Your task to perform on an android device: turn vacation reply on in the gmail app Image 0: 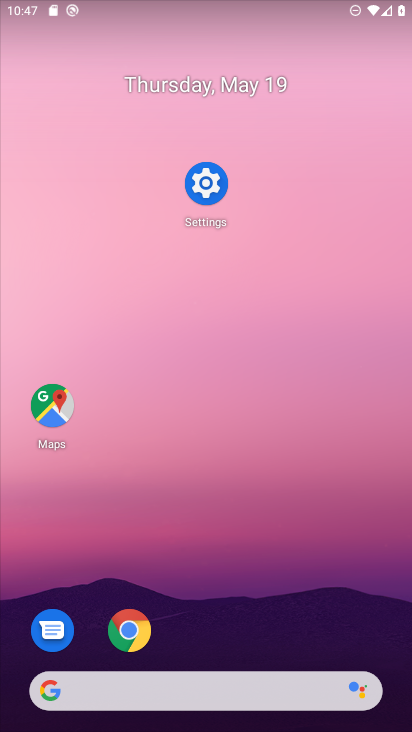
Step 0: drag from (237, 645) to (167, 240)
Your task to perform on an android device: turn vacation reply on in the gmail app Image 1: 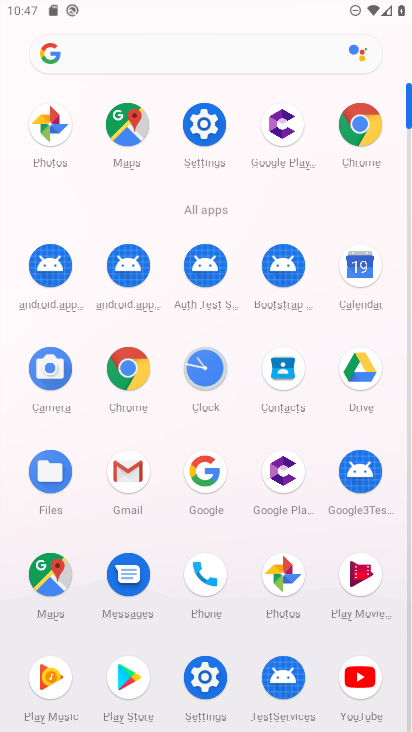
Step 1: click (137, 463)
Your task to perform on an android device: turn vacation reply on in the gmail app Image 2: 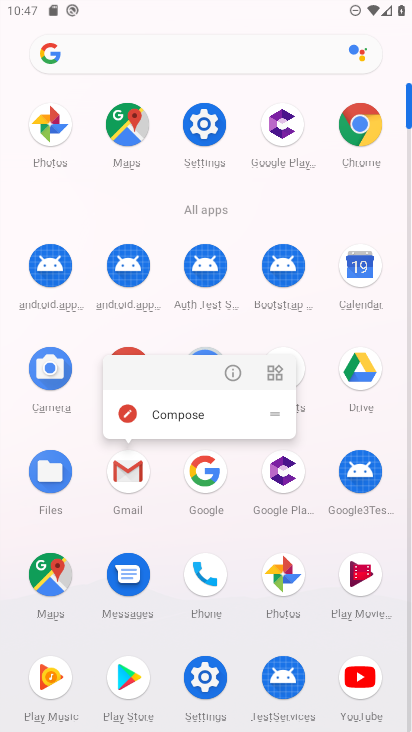
Step 2: click (137, 463)
Your task to perform on an android device: turn vacation reply on in the gmail app Image 3: 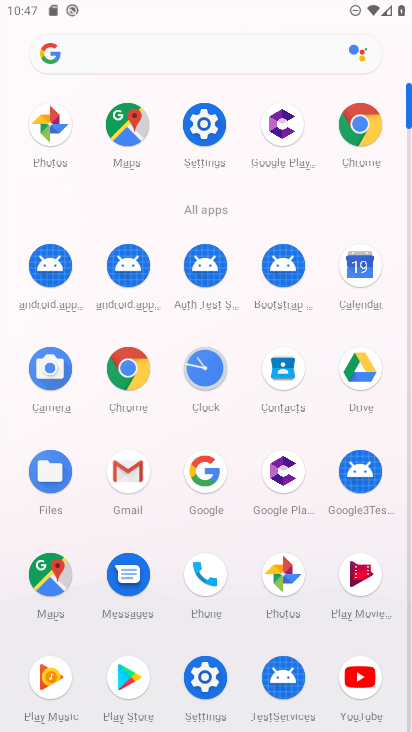
Step 3: click (137, 463)
Your task to perform on an android device: turn vacation reply on in the gmail app Image 4: 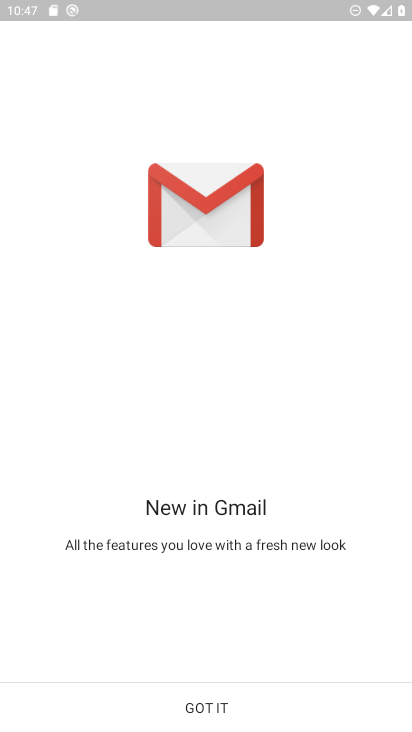
Step 4: click (201, 712)
Your task to perform on an android device: turn vacation reply on in the gmail app Image 5: 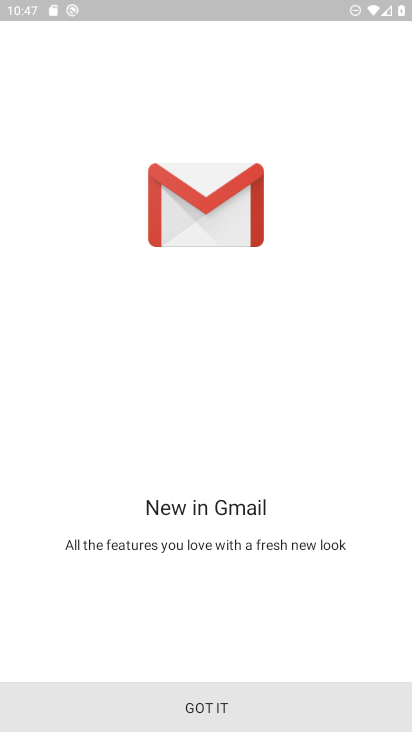
Step 5: click (201, 712)
Your task to perform on an android device: turn vacation reply on in the gmail app Image 6: 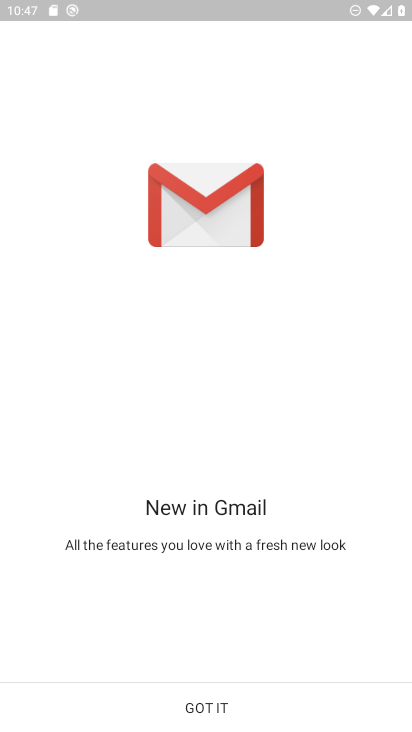
Step 6: click (198, 712)
Your task to perform on an android device: turn vacation reply on in the gmail app Image 7: 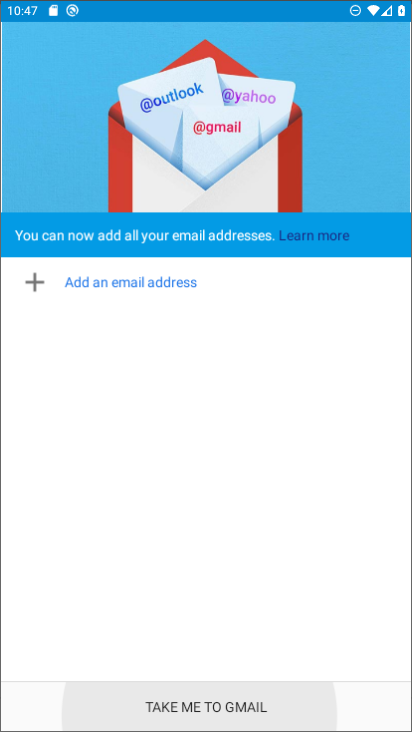
Step 7: click (198, 712)
Your task to perform on an android device: turn vacation reply on in the gmail app Image 8: 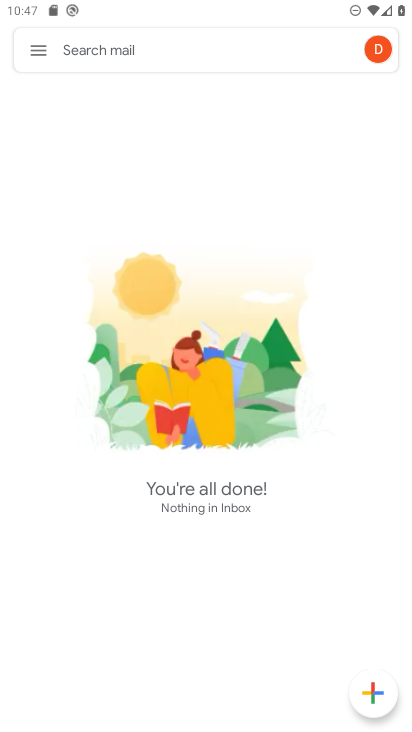
Step 8: press back button
Your task to perform on an android device: turn vacation reply on in the gmail app Image 9: 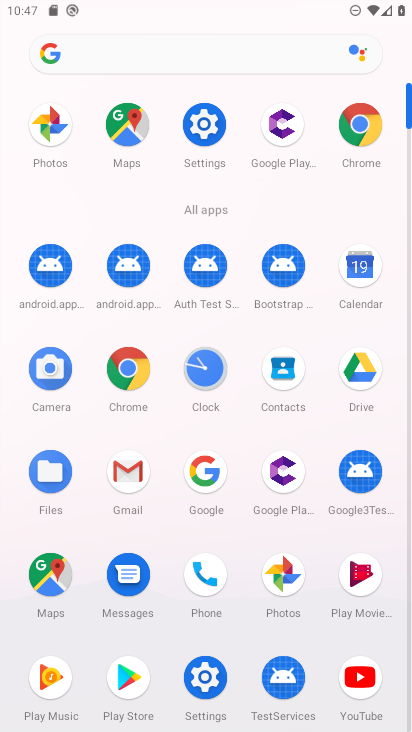
Step 9: click (114, 477)
Your task to perform on an android device: turn vacation reply on in the gmail app Image 10: 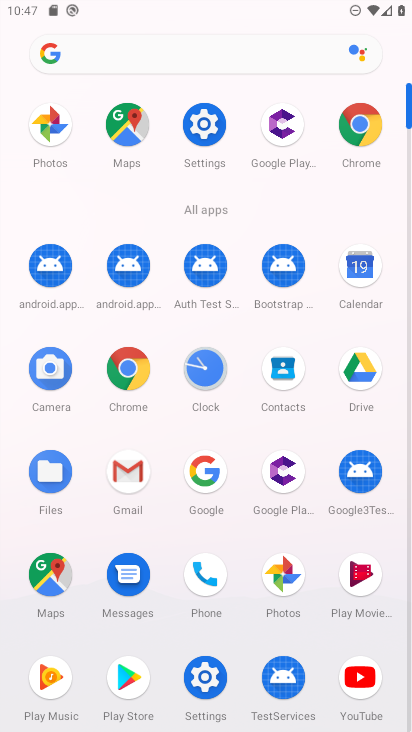
Step 10: click (117, 471)
Your task to perform on an android device: turn vacation reply on in the gmail app Image 11: 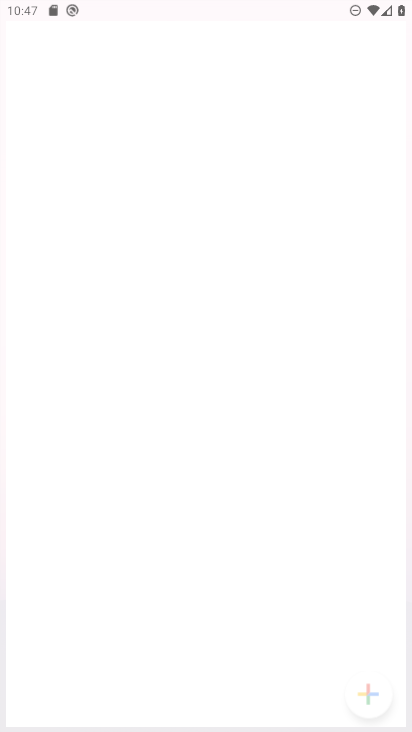
Step 11: click (117, 471)
Your task to perform on an android device: turn vacation reply on in the gmail app Image 12: 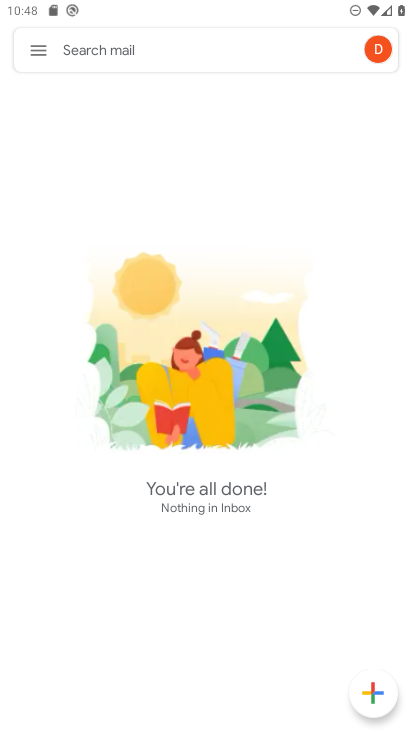
Step 12: click (35, 46)
Your task to perform on an android device: turn vacation reply on in the gmail app Image 13: 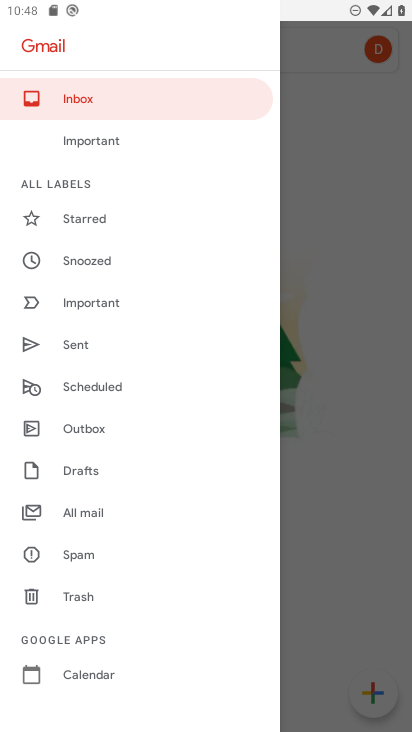
Step 13: drag from (110, 596) to (55, 113)
Your task to perform on an android device: turn vacation reply on in the gmail app Image 14: 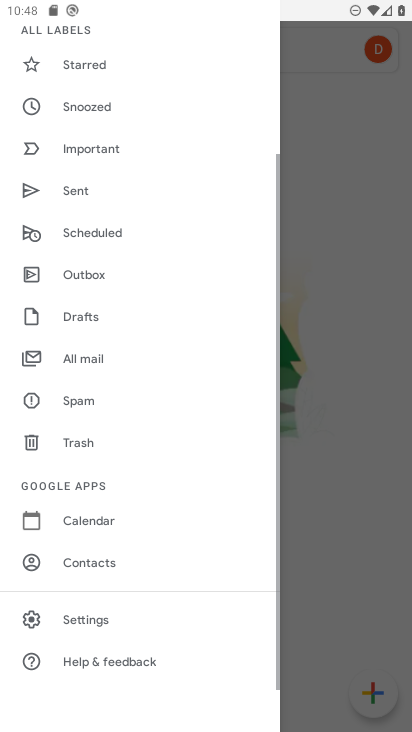
Step 14: drag from (190, 468) to (172, 101)
Your task to perform on an android device: turn vacation reply on in the gmail app Image 15: 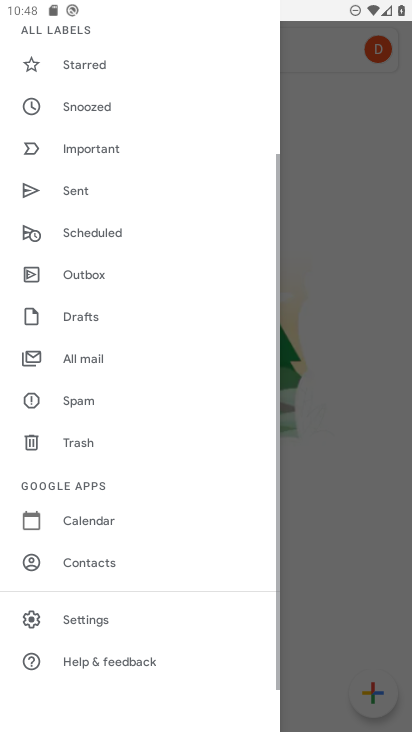
Step 15: drag from (181, 368) to (165, 198)
Your task to perform on an android device: turn vacation reply on in the gmail app Image 16: 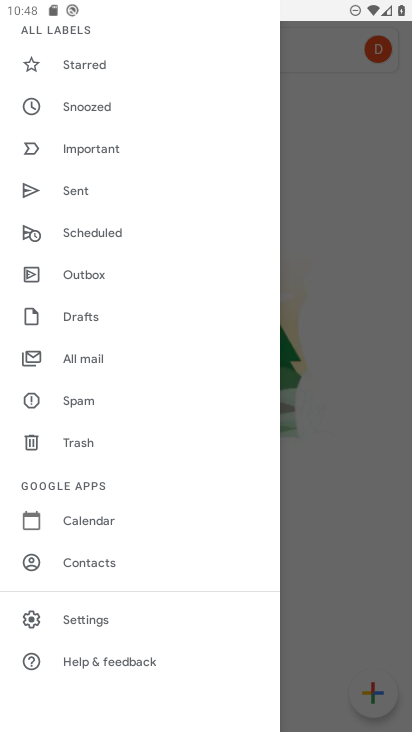
Step 16: click (79, 616)
Your task to perform on an android device: turn vacation reply on in the gmail app Image 17: 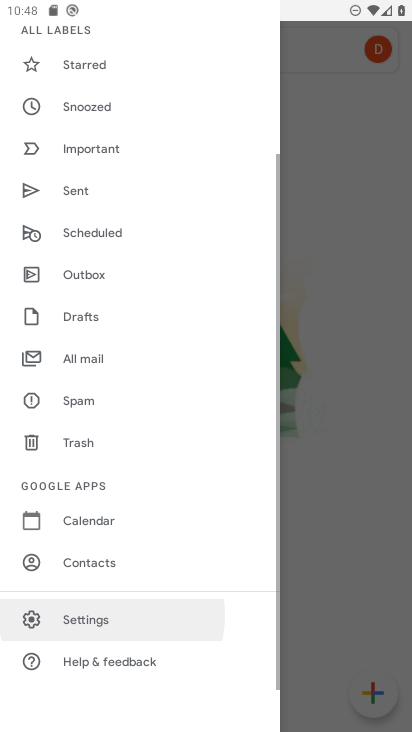
Step 17: click (79, 613)
Your task to perform on an android device: turn vacation reply on in the gmail app Image 18: 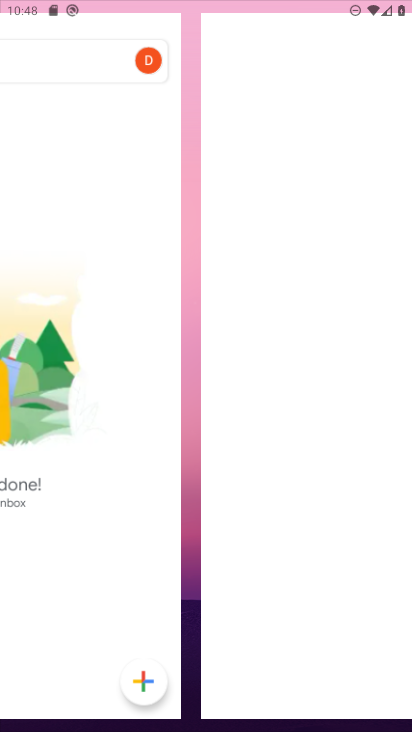
Step 18: click (81, 610)
Your task to perform on an android device: turn vacation reply on in the gmail app Image 19: 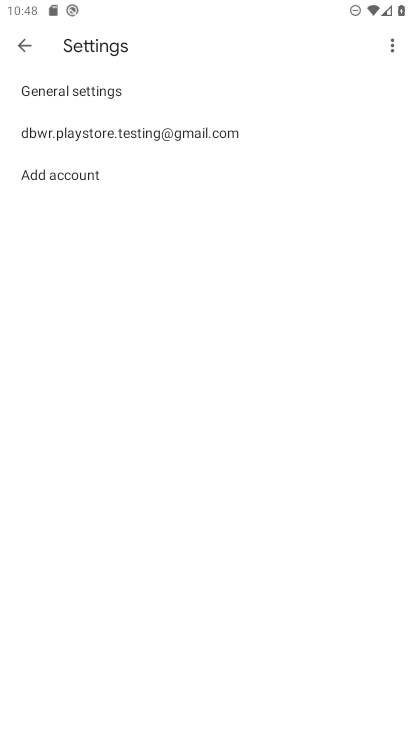
Step 19: click (111, 130)
Your task to perform on an android device: turn vacation reply on in the gmail app Image 20: 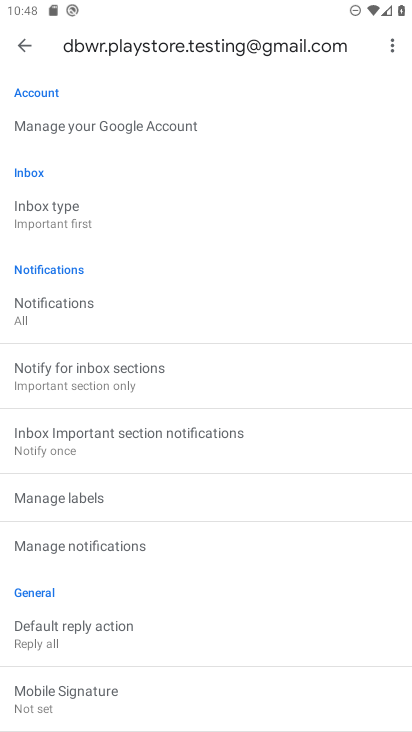
Step 20: drag from (125, 583) to (61, 160)
Your task to perform on an android device: turn vacation reply on in the gmail app Image 21: 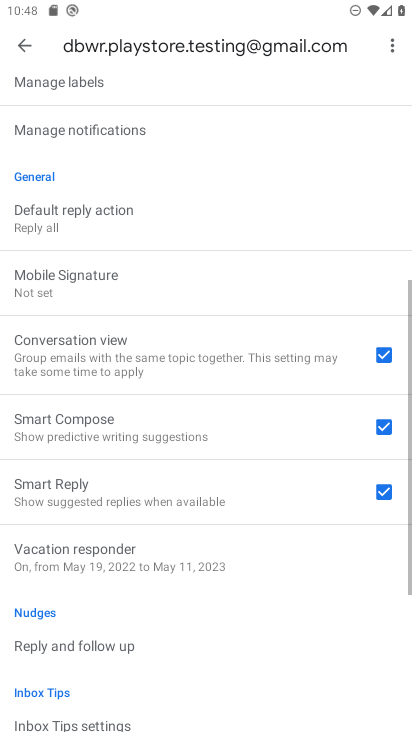
Step 21: drag from (135, 436) to (139, 141)
Your task to perform on an android device: turn vacation reply on in the gmail app Image 22: 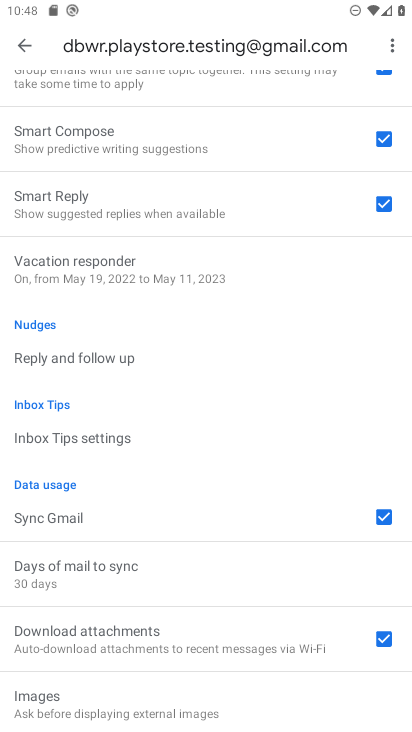
Step 22: click (86, 277)
Your task to perform on an android device: turn vacation reply on in the gmail app Image 23: 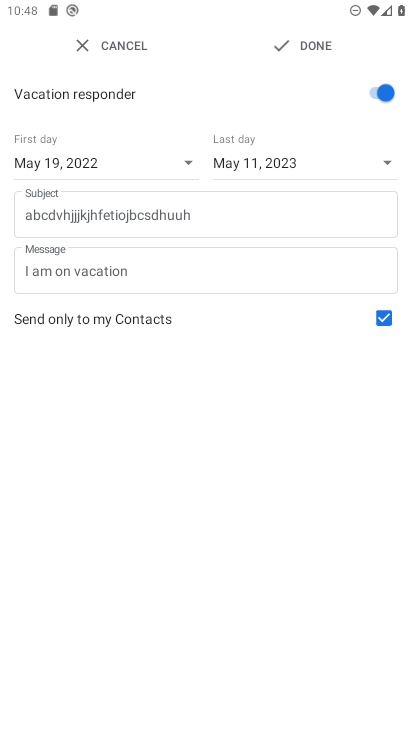
Step 23: task complete